Your task to perform on an android device: set the timer Image 0: 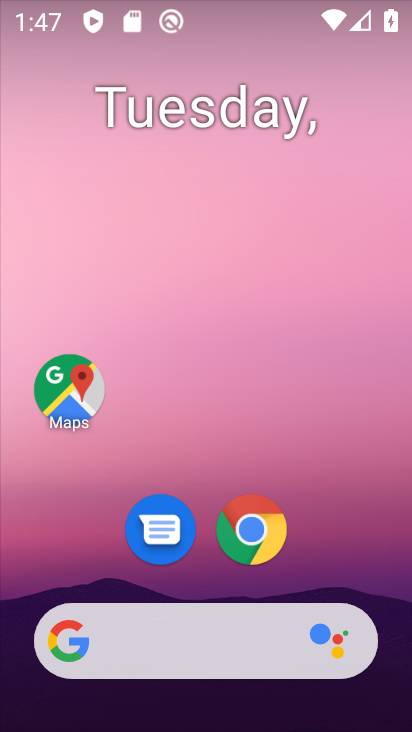
Step 0: drag from (385, 612) to (258, 101)
Your task to perform on an android device: set the timer Image 1: 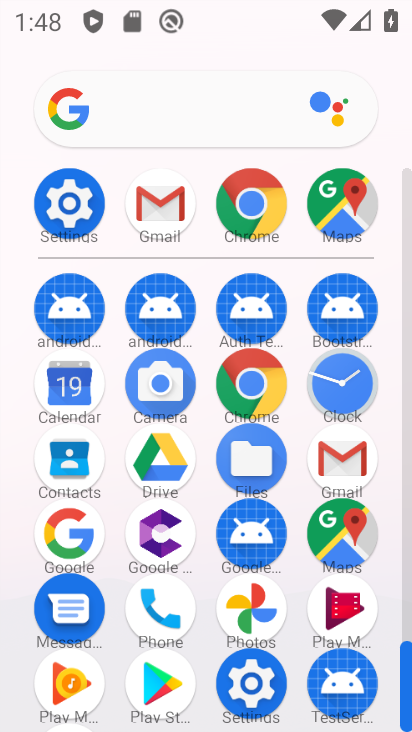
Step 1: click (364, 383)
Your task to perform on an android device: set the timer Image 2: 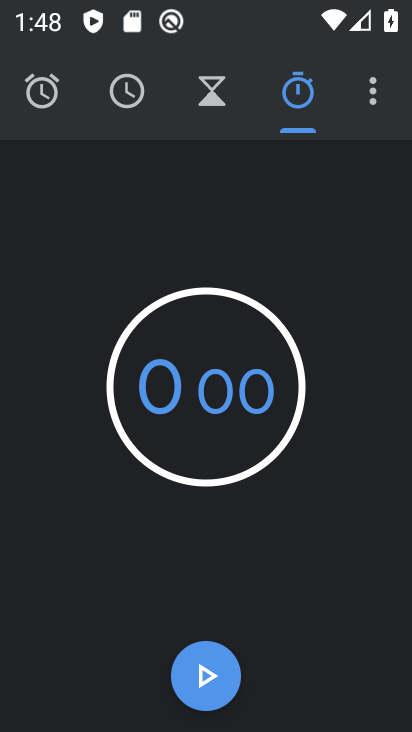
Step 2: click (360, 90)
Your task to perform on an android device: set the timer Image 3: 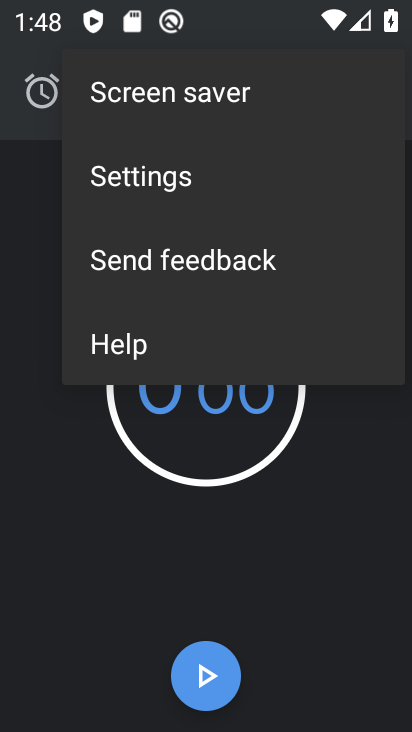
Step 3: click (187, 164)
Your task to perform on an android device: set the timer Image 4: 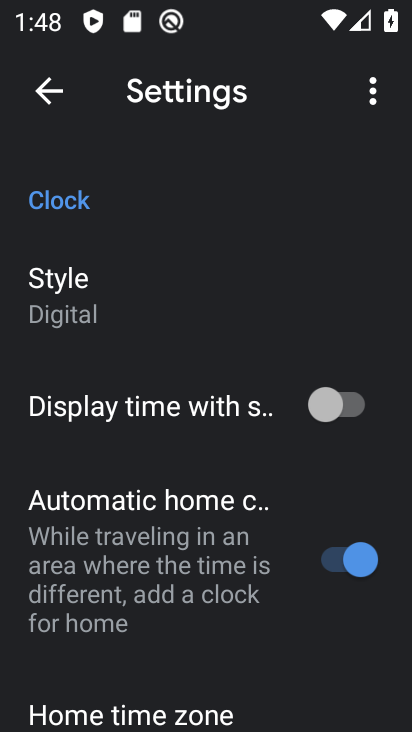
Step 4: drag from (159, 582) to (241, 132)
Your task to perform on an android device: set the timer Image 5: 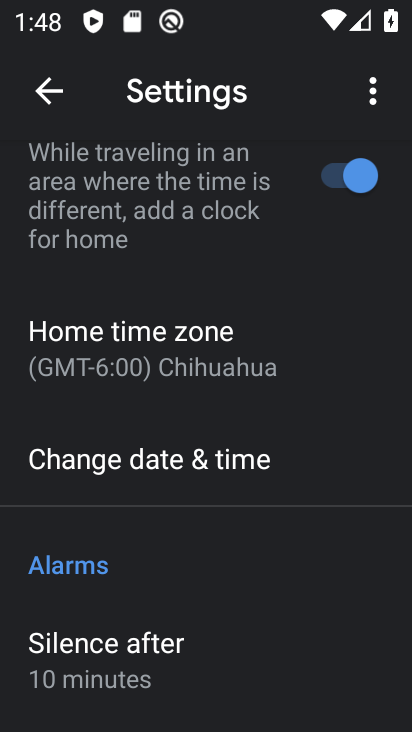
Step 5: click (235, 350)
Your task to perform on an android device: set the timer Image 6: 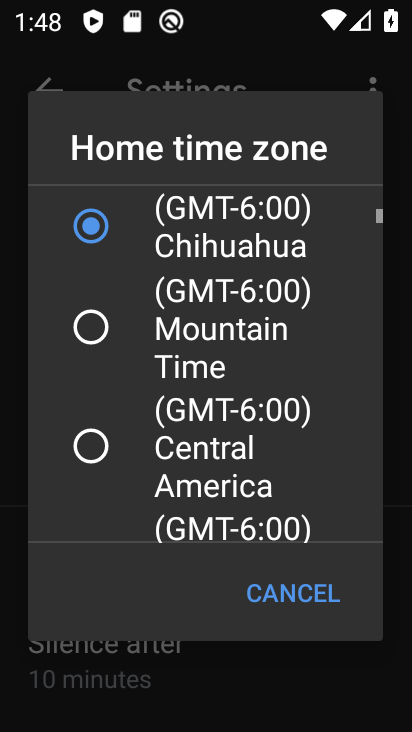
Step 6: click (222, 433)
Your task to perform on an android device: set the timer Image 7: 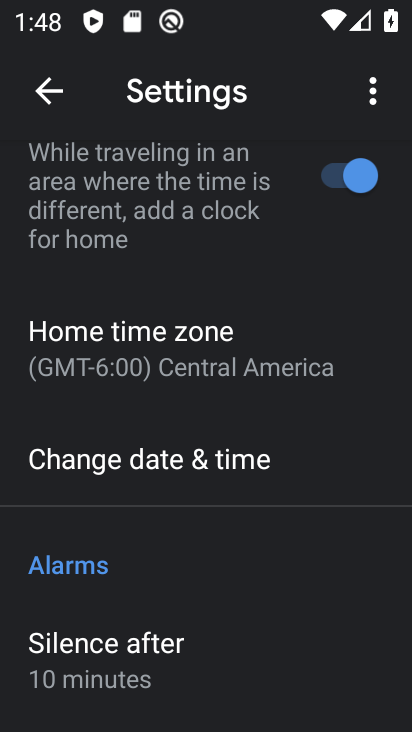
Step 7: task complete